Your task to perform on an android device: Open wifi settings Image 0: 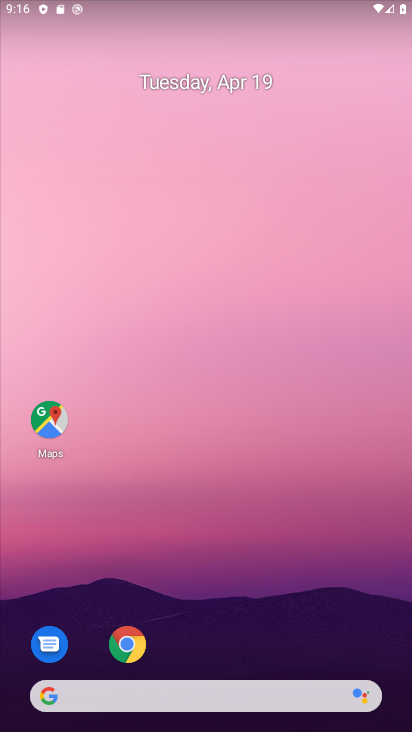
Step 0: drag from (269, 631) to (271, 466)
Your task to perform on an android device: Open wifi settings Image 1: 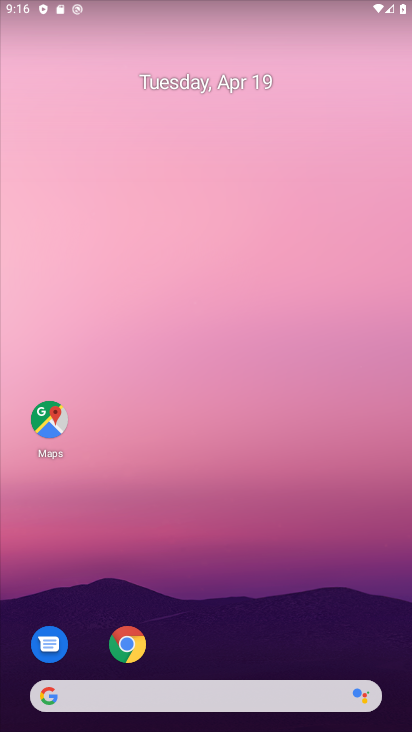
Step 1: drag from (242, 634) to (247, 3)
Your task to perform on an android device: Open wifi settings Image 2: 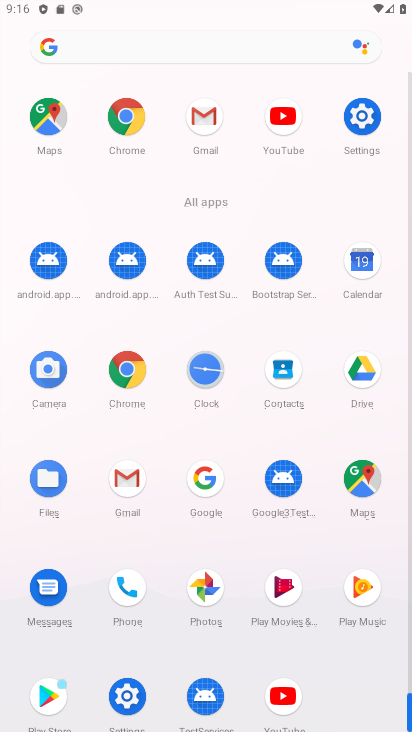
Step 2: drag from (236, 7) to (167, 479)
Your task to perform on an android device: Open wifi settings Image 3: 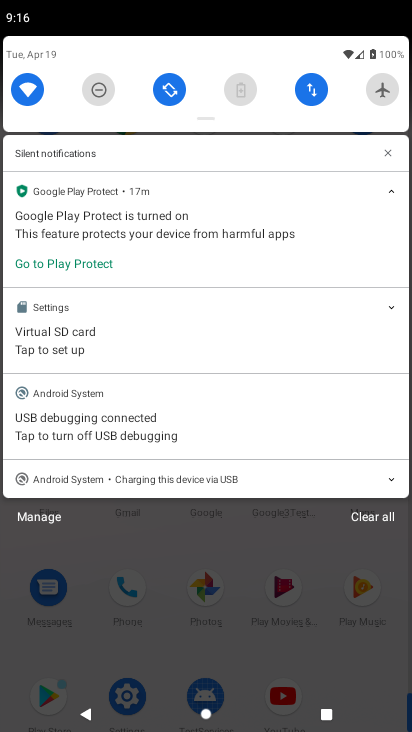
Step 3: click (19, 88)
Your task to perform on an android device: Open wifi settings Image 4: 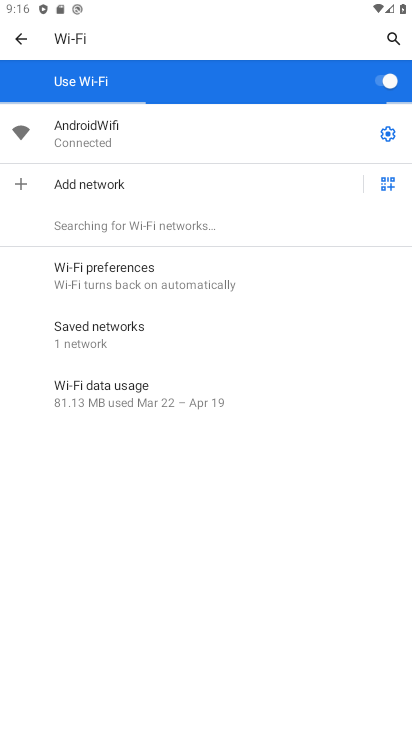
Step 4: task complete